Your task to perform on an android device: toggle notification dots Image 0: 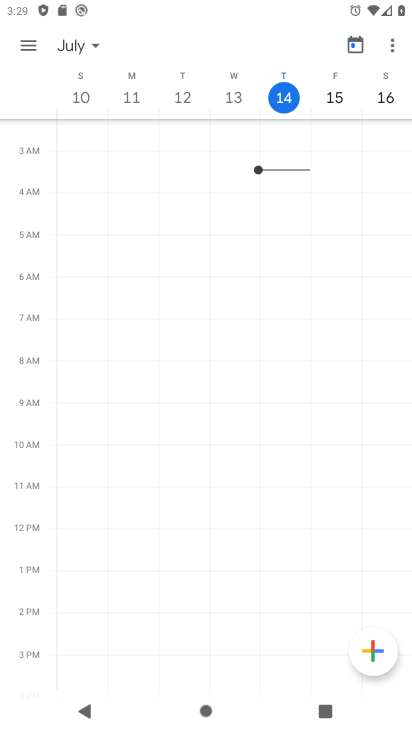
Step 0: press home button
Your task to perform on an android device: toggle notification dots Image 1: 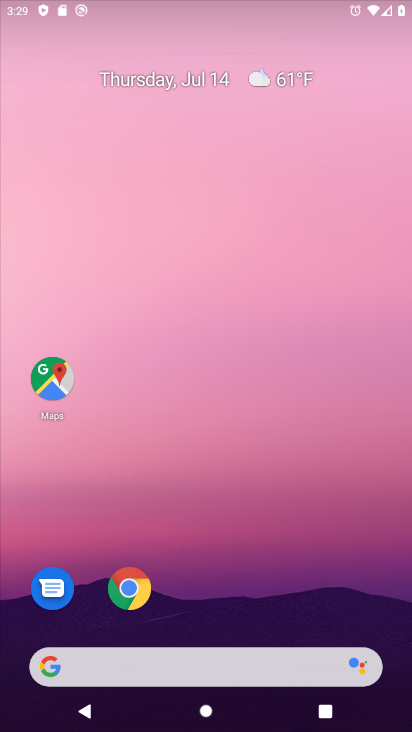
Step 1: drag from (275, 581) to (289, 72)
Your task to perform on an android device: toggle notification dots Image 2: 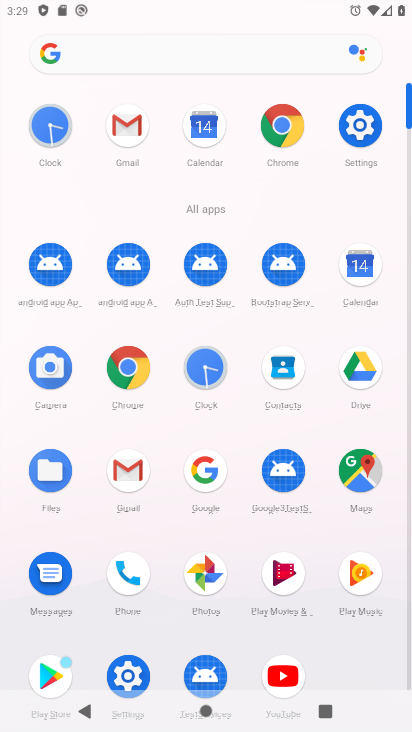
Step 2: click (367, 121)
Your task to perform on an android device: toggle notification dots Image 3: 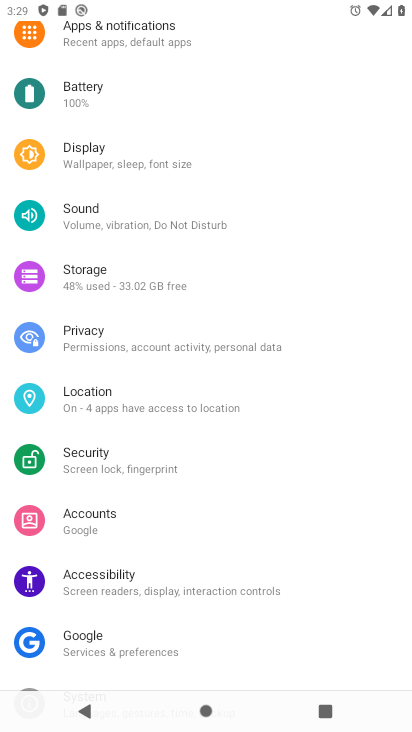
Step 3: click (133, 37)
Your task to perform on an android device: toggle notification dots Image 4: 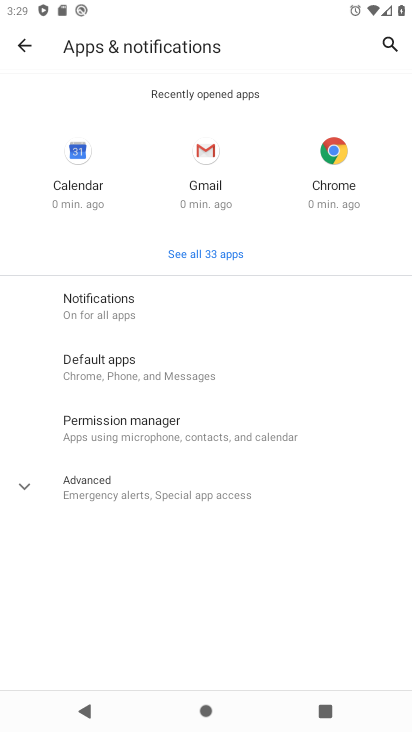
Step 4: click (38, 485)
Your task to perform on an android device: toggle notification dots Image 5: 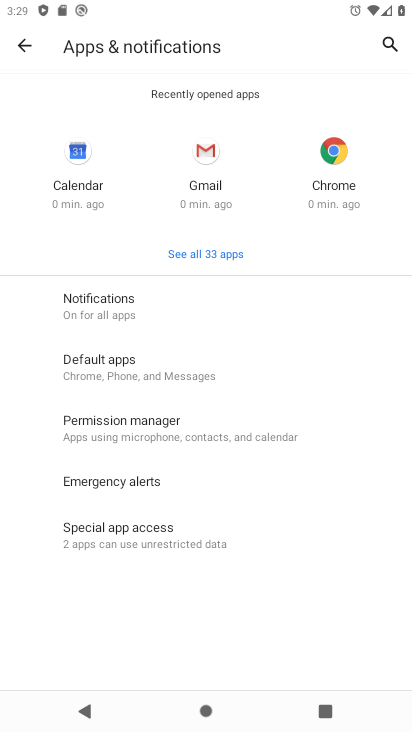
Step 5: click (108, 307)
Your task to perform on an android device: toggle notification dots Image 6: 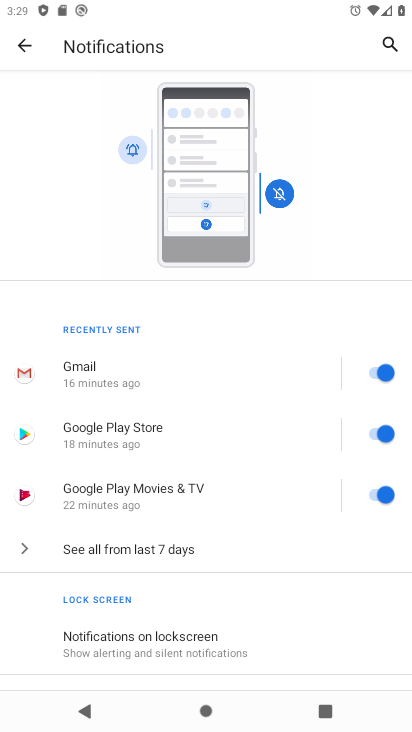
Step 6: drag from (197, 592) to (186, 355)
Your task to perform on an android device: toggle notification dots Image 7: 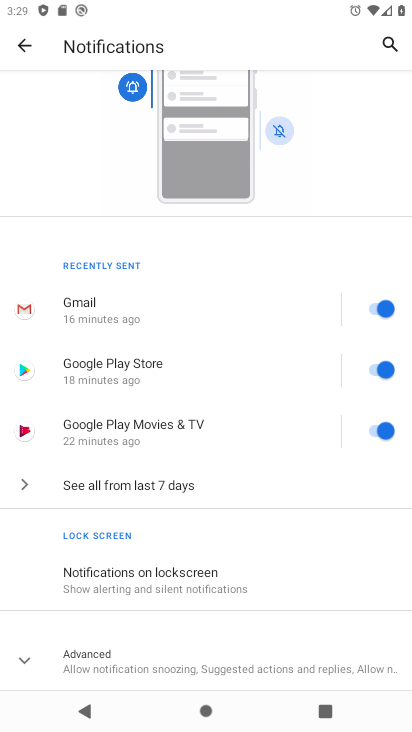
Step 7: click (19, 654)
Your task to perform on an android device: toggle notification dots Image 8: 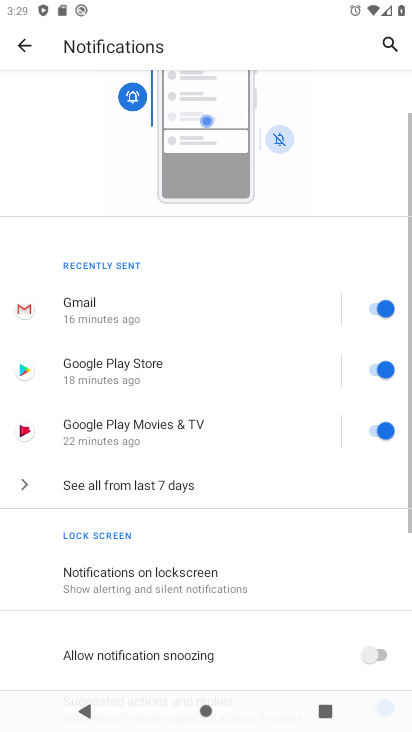
Step 8: drag from (274, 618) to (296, 384)
Your task to perform on an android device: toggle notification dots Image 9: 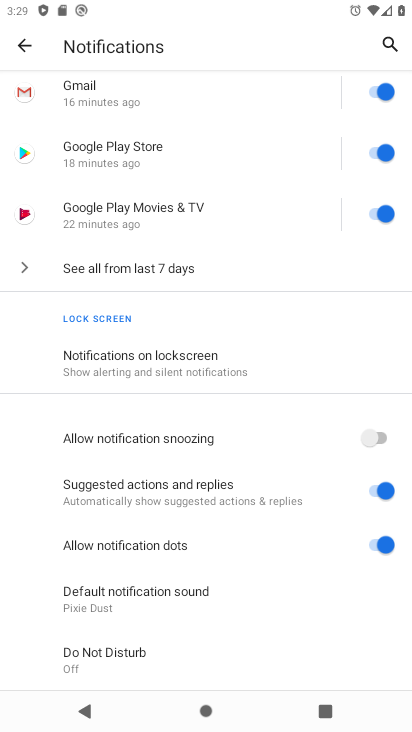
Step 9: click (380, 537)
Your task to perform on an android device: toggle notification dots Image 10: 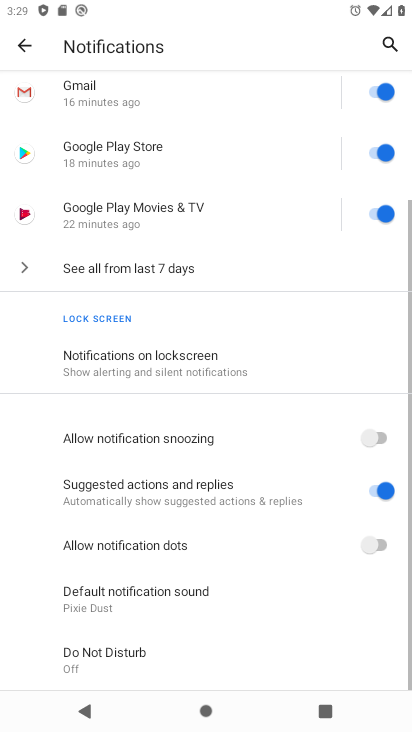
Step 10: task complete